Your task to perform on an android device: turn on wifi Image 0: 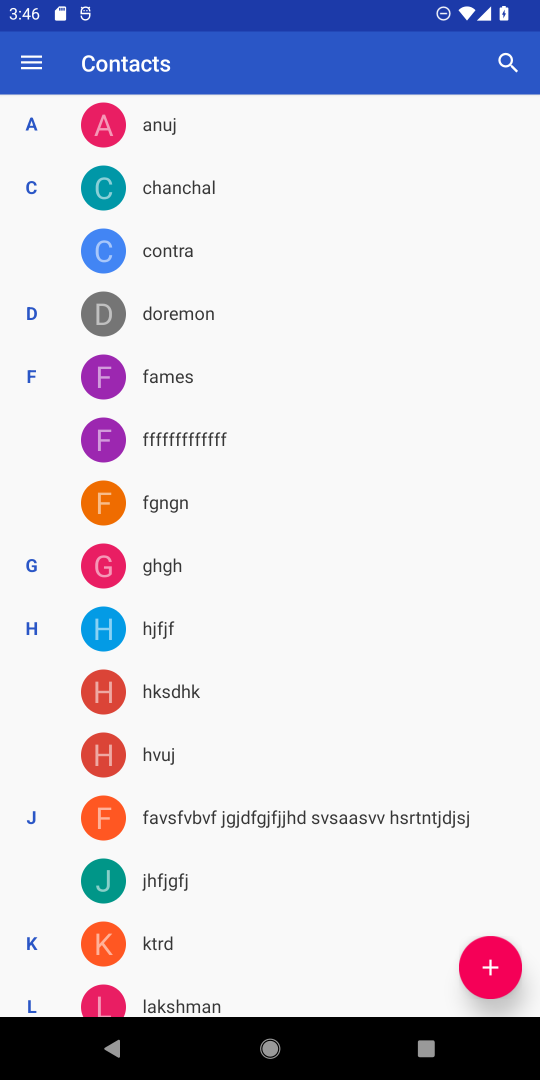
Step 0: press home button
Your task to perform on an android device: turn on wifi Image 1: 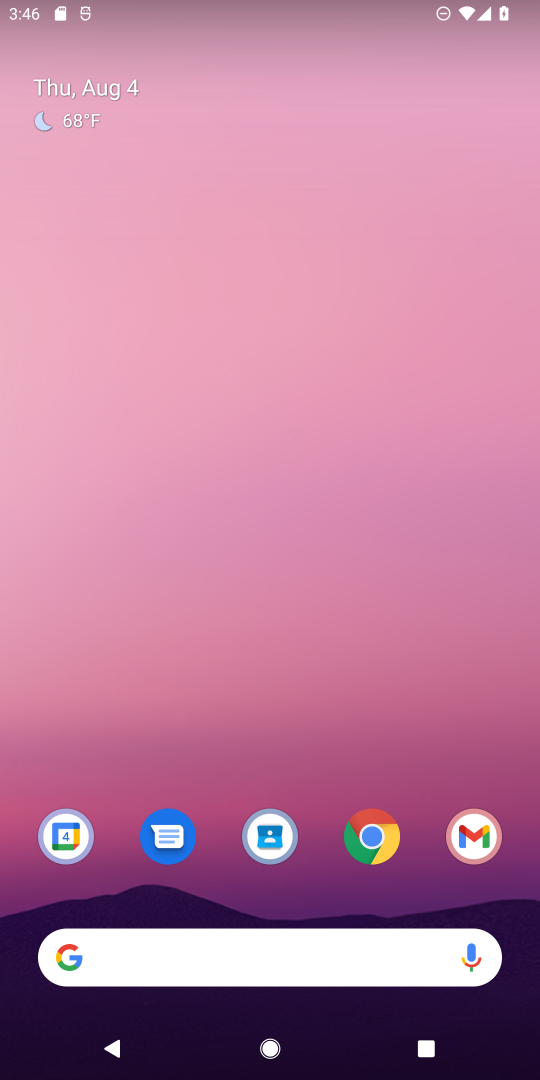
Step 1: drag from (188, 992) to (322, 21)
Your task to perform on an android device: turn on wifi Image 2: 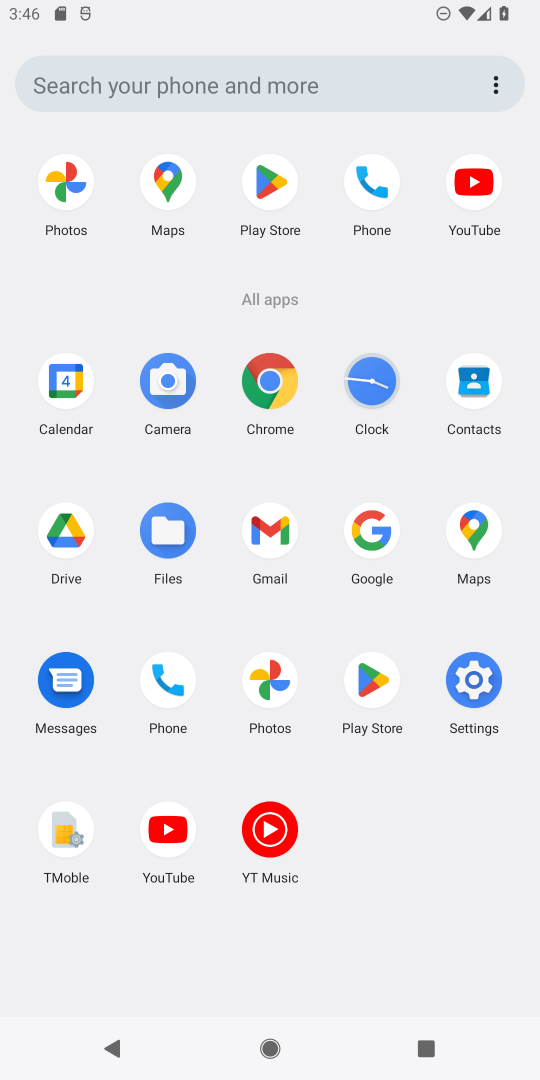
Step 2: click (484, 687)
Your task to perform on an android device: turn on wifi Image 3: 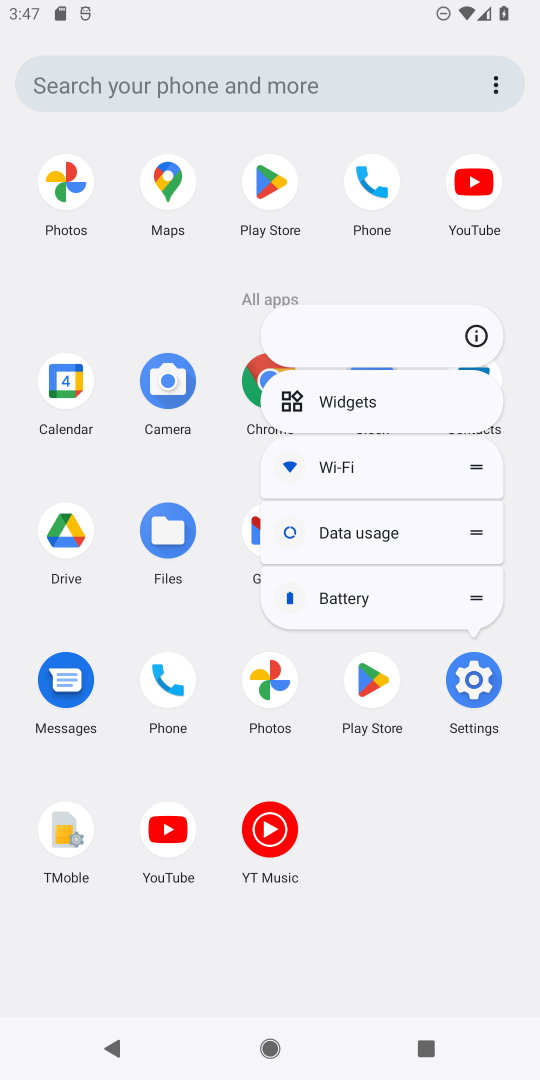
Step 3: click (466, 675)
Your task to perform on an android device: turn on wifi Image 4: 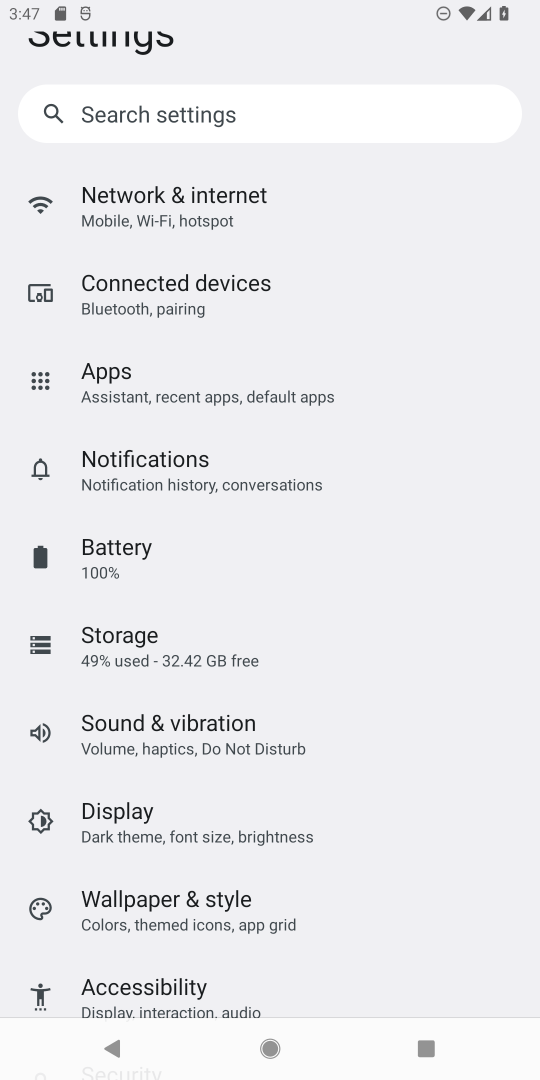
Step 4: click (295, 217)
Your task to perform on an android device: turn on wifi Image 5: 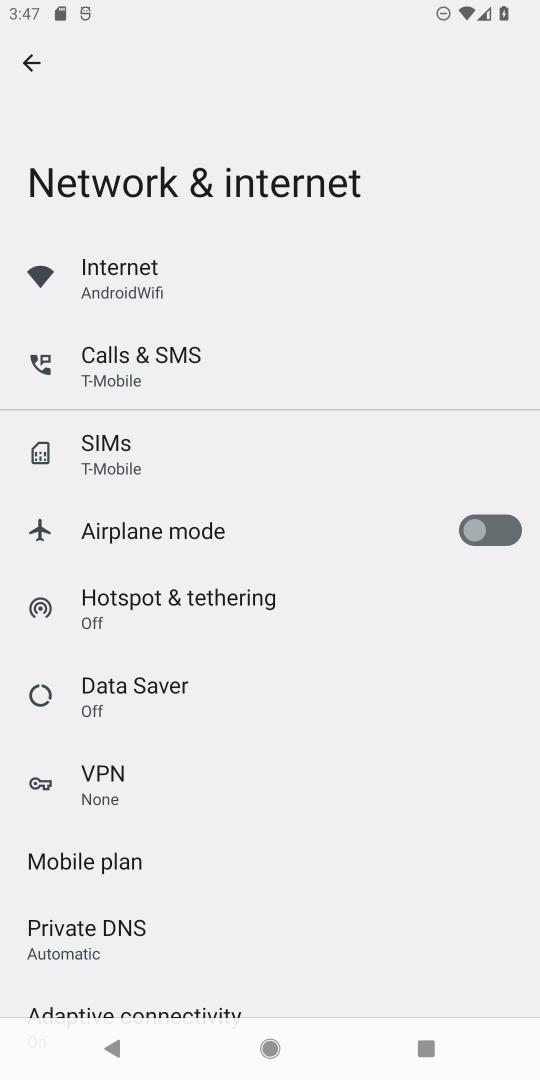
Step 5: click (165, 284)
Your task to perform on an android device: turn on wifi Image 6: 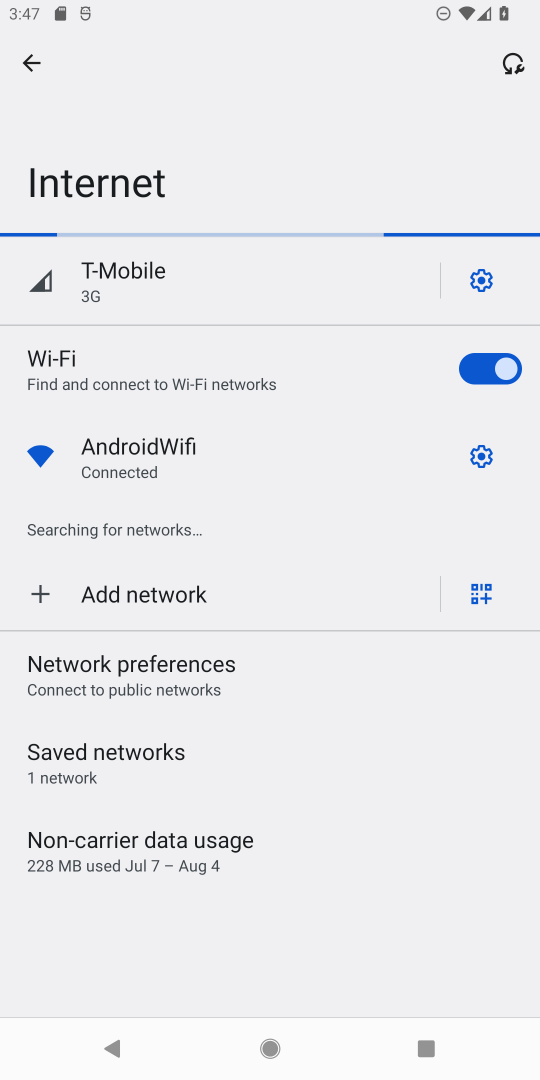
Step 6: task complete